Your task to perform on an android device: turn on wifi Image 0: 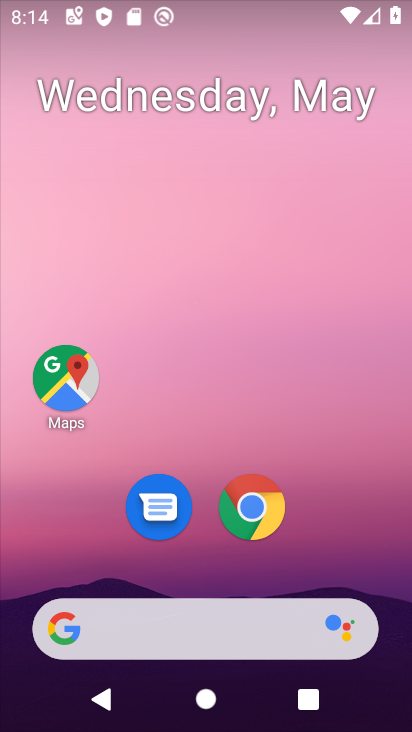
Step 0: drag from (322, 521) to (321, 255)
Your task to perform on an android device: turn on wifi Image 1: 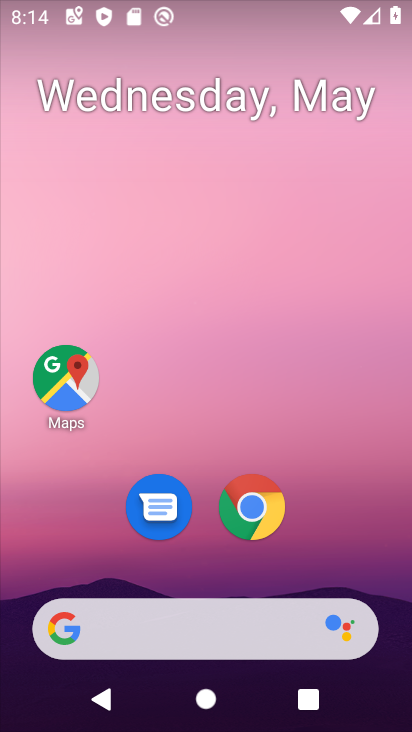
Step 1: drag from (314, 547) to (304, 256)
Your task to perform on an android device: turn on wifi Image 2: 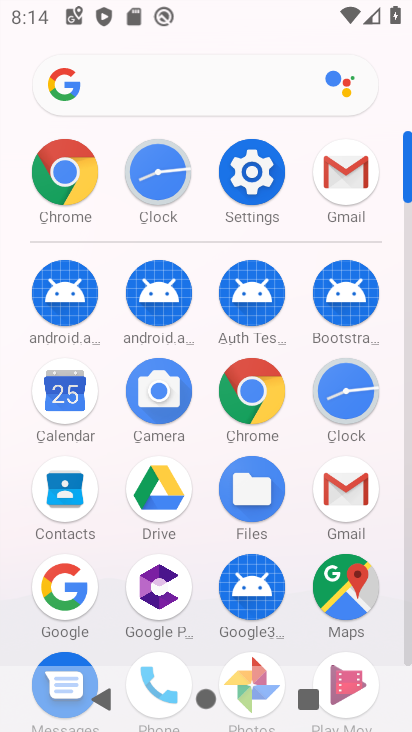
Step 2: click (240, 162)
Your task to perform on an android device: turn on wifi Image 3: 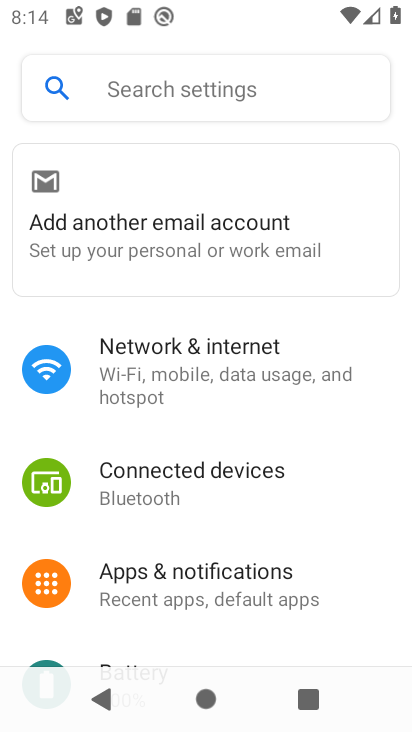
Step 3: click (155, 365)
Your task to perform on an android device: turn on wifi Image 4: 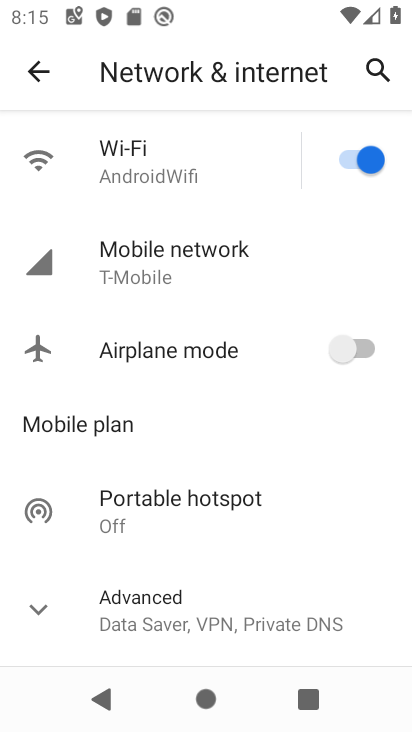
Step 4: task complete